Your task to perform on an android device: Show me popular videos on Youtube Image 0: 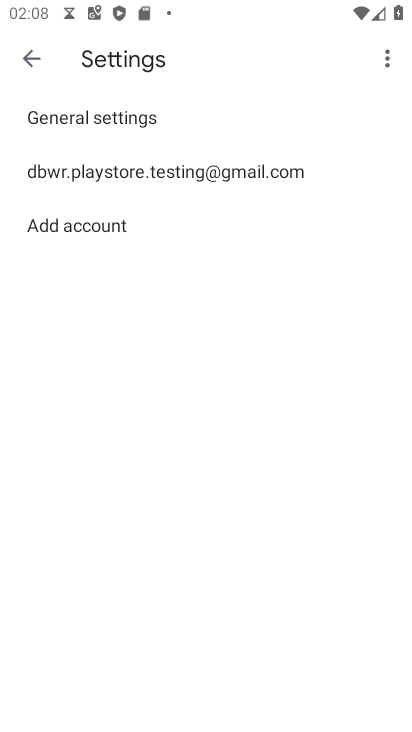
Step 0: press home button
Your task to perform on an android device: Show me popular videos on Youtube Image 1: 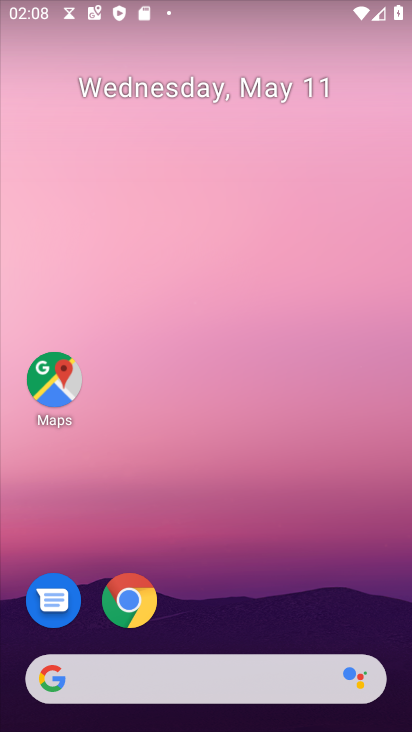
Step 1: drag from (236, 613) to (257, 208)
Your task to perform on an android device: Show me popular videos on Youtube Image 2: 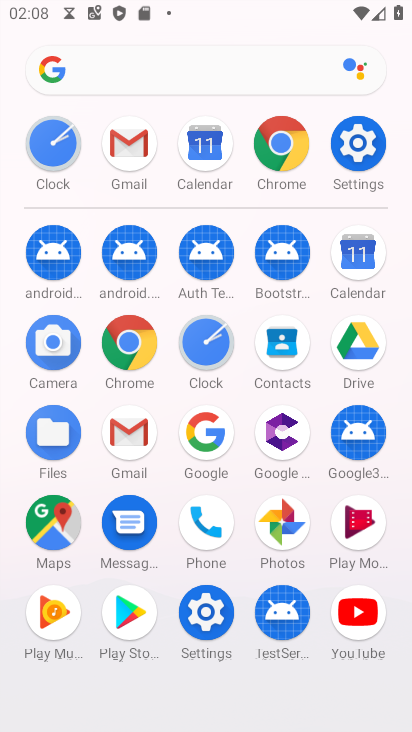
Step 2: click (351, 619)
Your task to perform on an android device: Show me popular videos on Youtube Image 3: 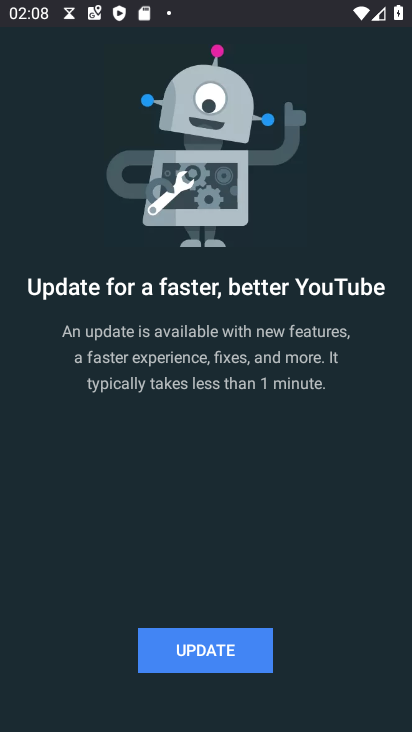
Step 3: task complete